Your task to perform on an android device: Show me productivity apps on the Play Store Image 0: 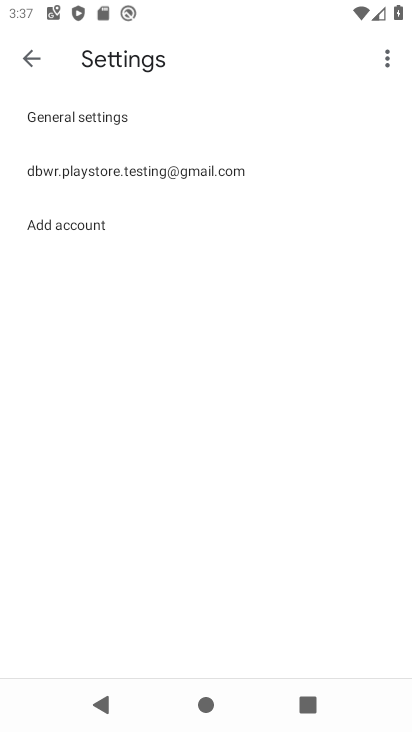
Step 0: press home button
Your task to perform on an android device: Show me productivity apps on the Play Store Image 1: 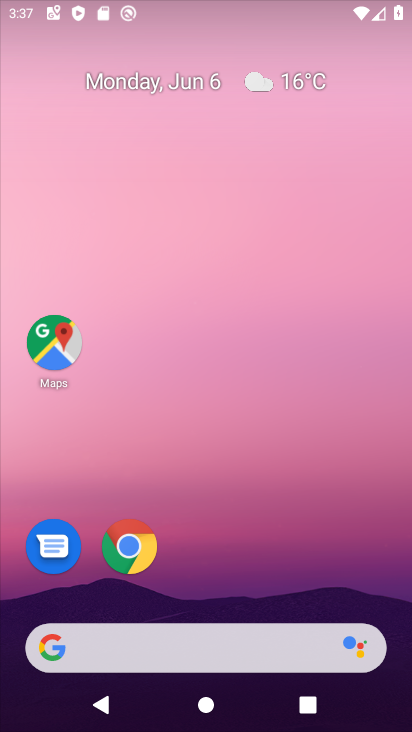
Step 1: drag from (361, 590) to (391, 1)
Your task to perform on an android device: Show me productivity apps on the Play Store Image 2: 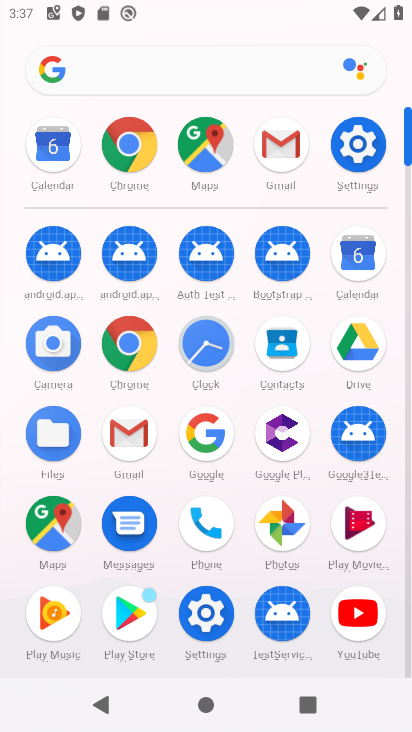
Step 2: click (126, 625)
Your task to perform on an android device: Show me productivity apps on the Play Store Image 3: 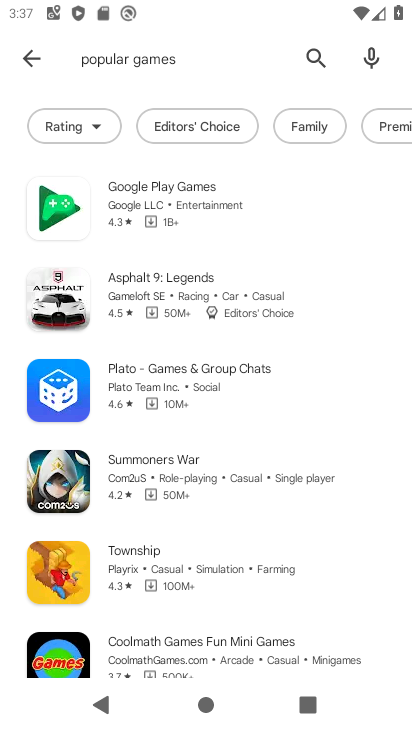
Step 3: click (305, 56)
Your task to perform on an android device: Show me productivity apps on the Play Store Image 4: 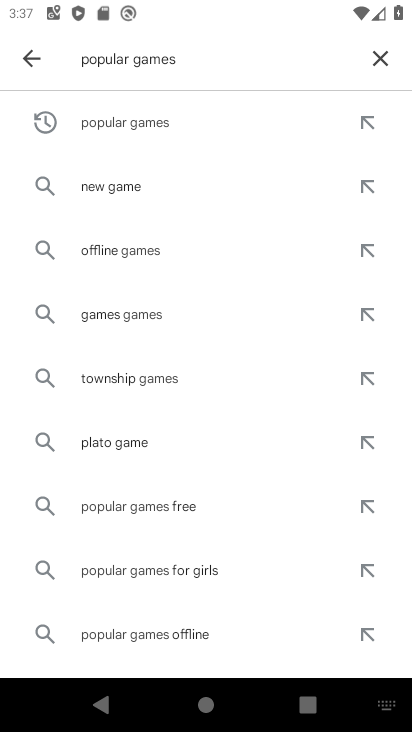
Step 4: click (388, 67)
Your task to perform on an android device: Show me productivity apps on the Play Store Image 5: 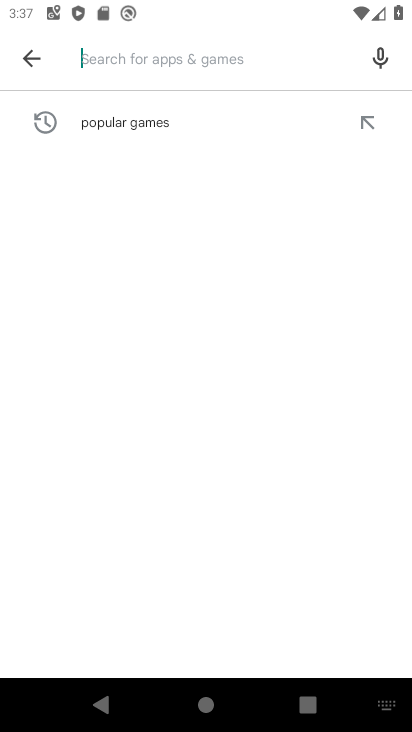
Step 5: type "productivity apps"
Your task to perform on an android device: Show me productivity apps on the Play Store Image 6: 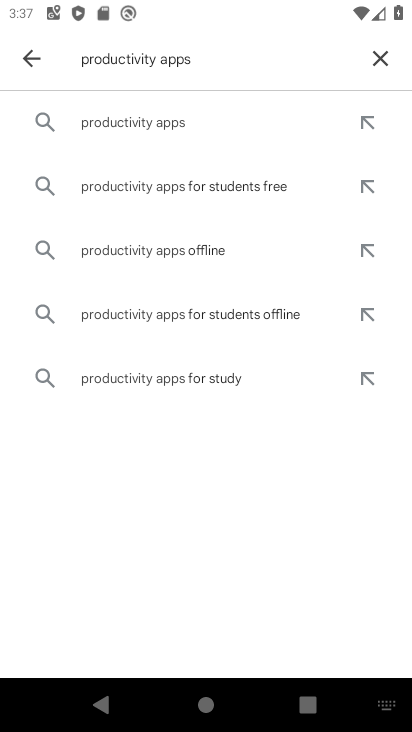
Step 6: click (166, 136)
Your task to perform on an android device: Show me productivity apps on the Play Store Image 7: 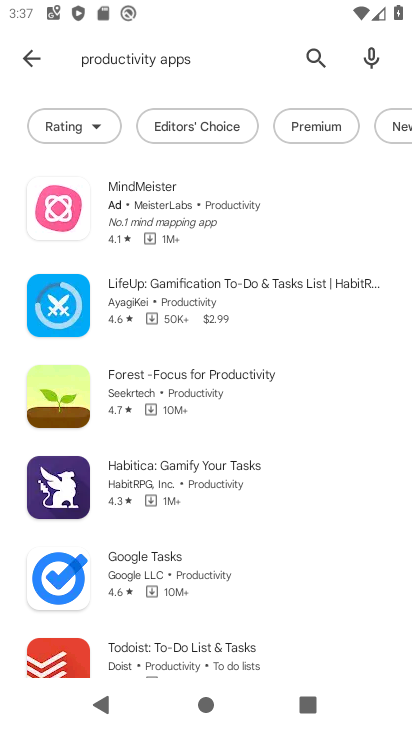
Step 7: task complete